Your task to perform on an android device: Toggle the flashlight Image 0: 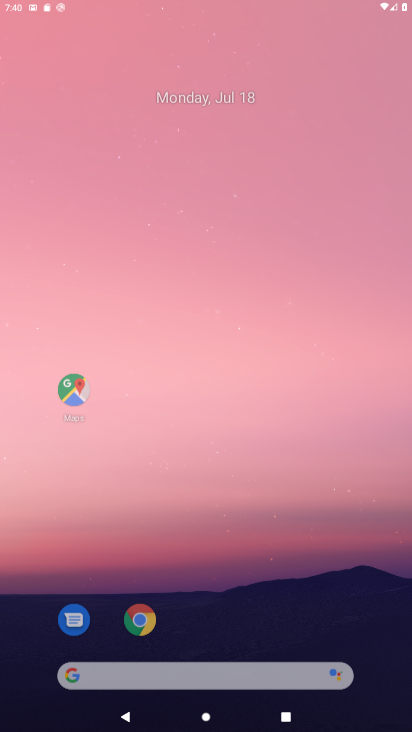
Step 0: click (145, 615)
Your task to perform on an android device: Toggle the flashlight Image 1: 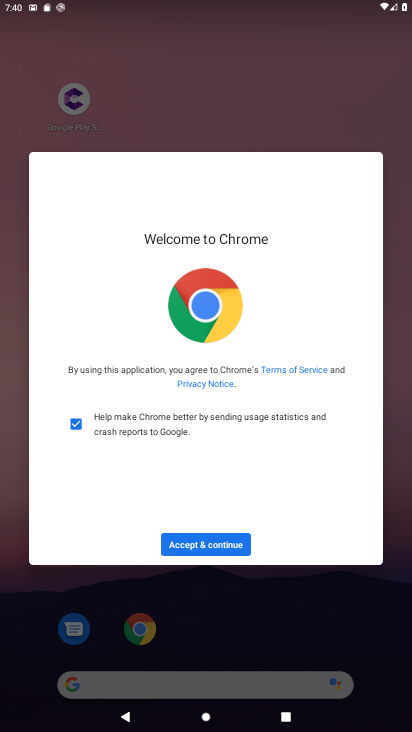
Step 1: click (223, 534)
Your task to perform on an android device: Toggle the flashlight Image 2: 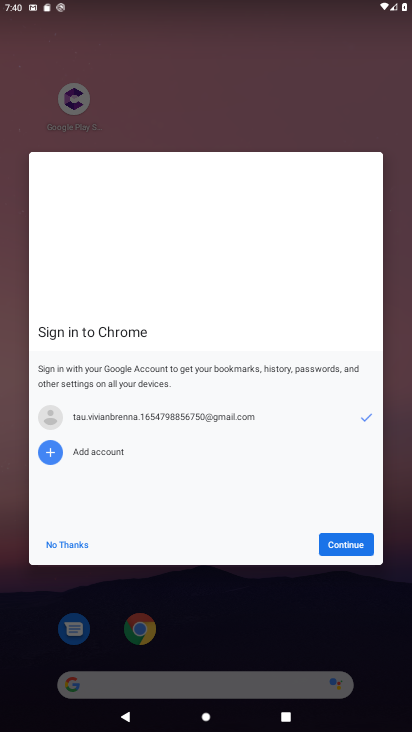
Step 2: click (363, 547)
Your task to perform on an android device: Toggle the flashlight Image 3: 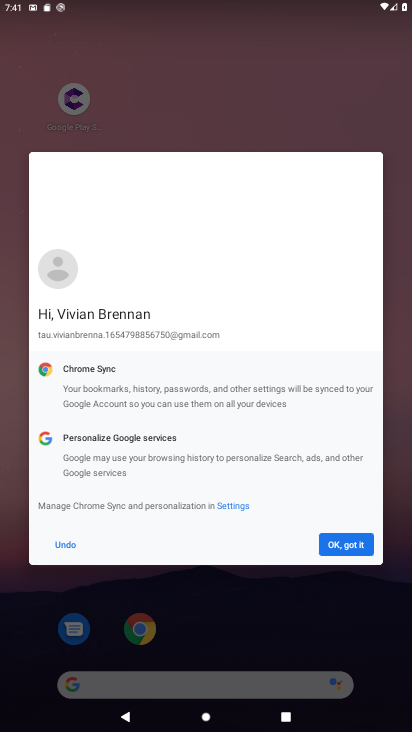
Step 3: click (360, 545)
Your task to perform on an android device: Toggle the flashlight Image 4: 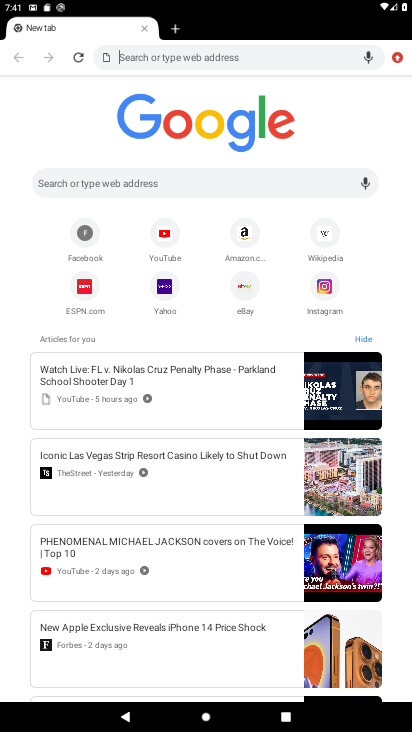
Step 4: press home button
Your task to perform on an android device: Toggle the flashlight Image 5: 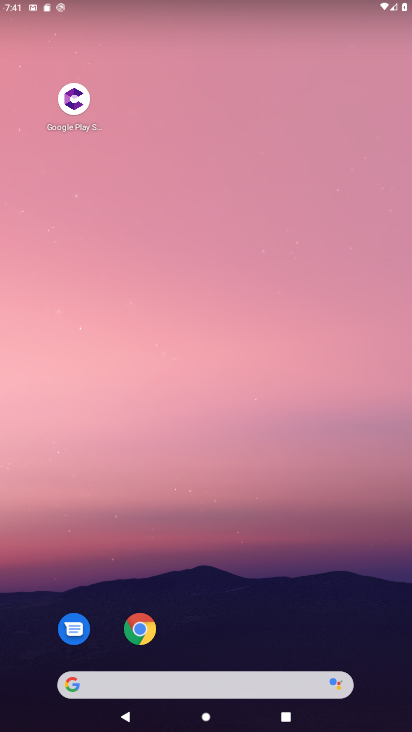
Step 5: drag from (206, 543) to (256, 194)
Your task to perform on an android device: Toggle the flashlight Image 6: 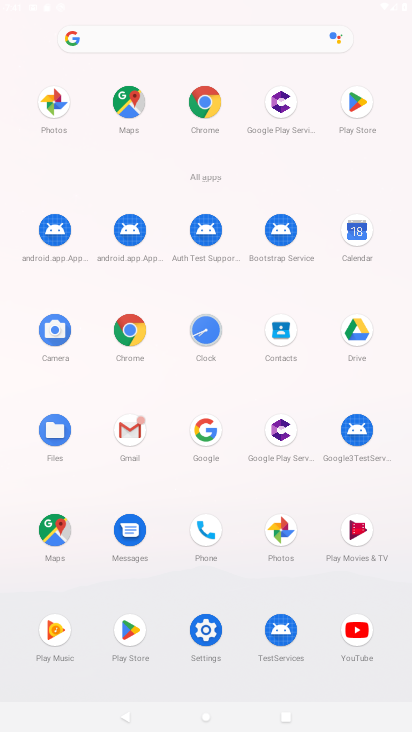
Step 6: click (215, 631)
Your task to perform on an android device: Toggle the flashlight Image 7: 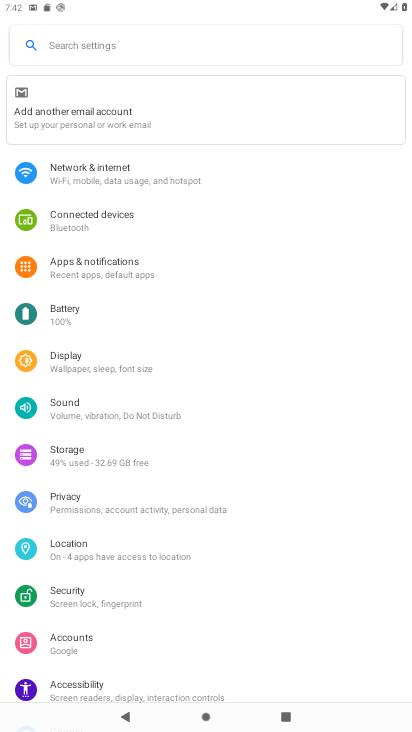
Step 7: click (75, 348)
Your task to perform on an android device: Toggle the flashlight Image 8: 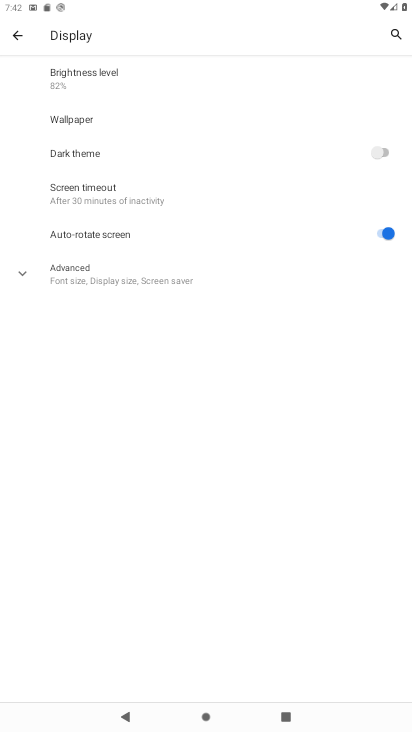
Step 8: task complete